Your task to perform on an android device: Open accessibility settings Image 0: 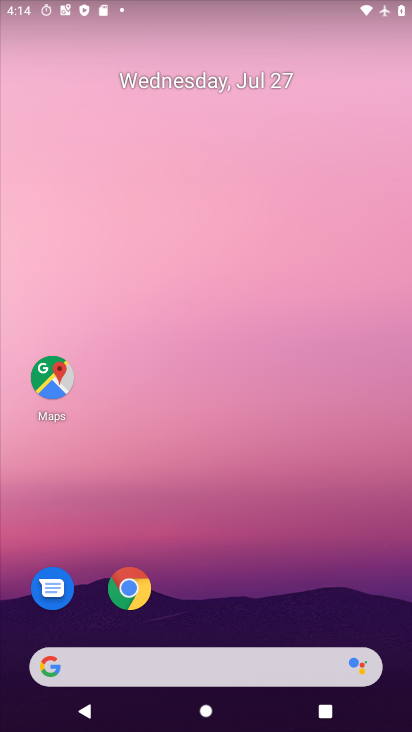
Step 0: press home button
Your task to perform on an android device: Open accessibility settings Image 1: 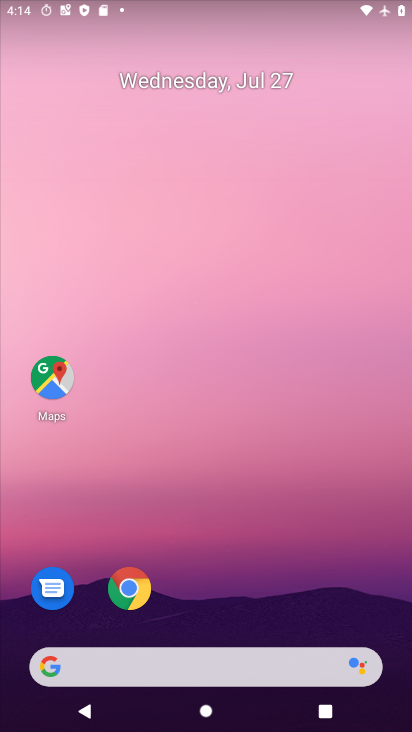
Step 1: drag from (231, 488) to (380, 0)
Your task to perform on an android device: Open accessibility settings Image 2: 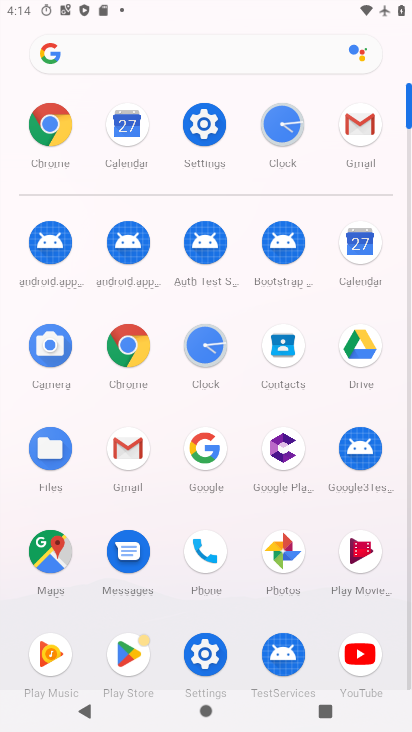
Step 2: click (210, 112)
Your task to perform on an android device: Open accessibility settings Image 3: 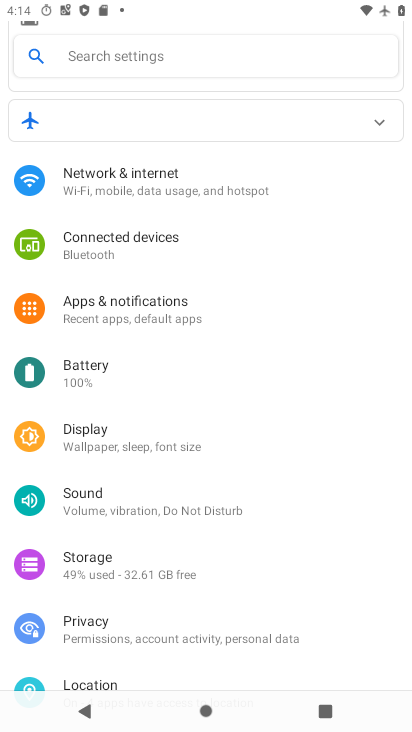
Step 3: drag from (159, 592) to (181, 235)
Your task to perform on an android device: Open accessibility settings Image 4: 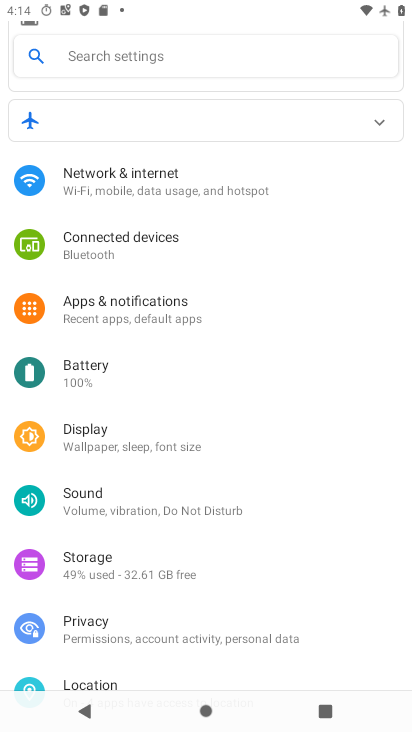
Step 4: drag from (200, 599) to (253, 163)
Your task to perform on an android device: Open accessibility settings Image 5: 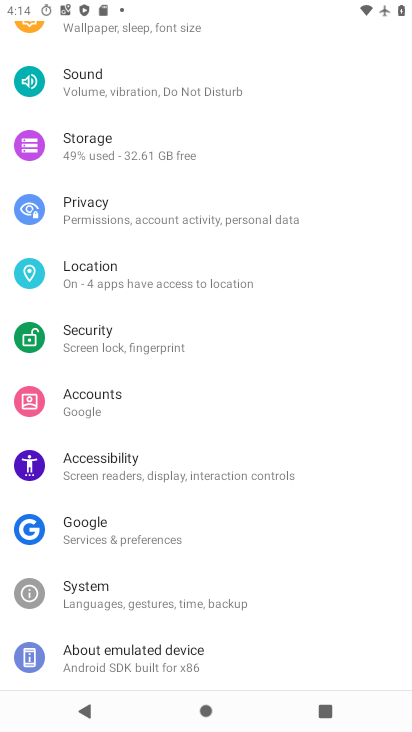
Step 5: click (105, 448)
Your task to perform on an android device: Open accessibility settings Image 6: 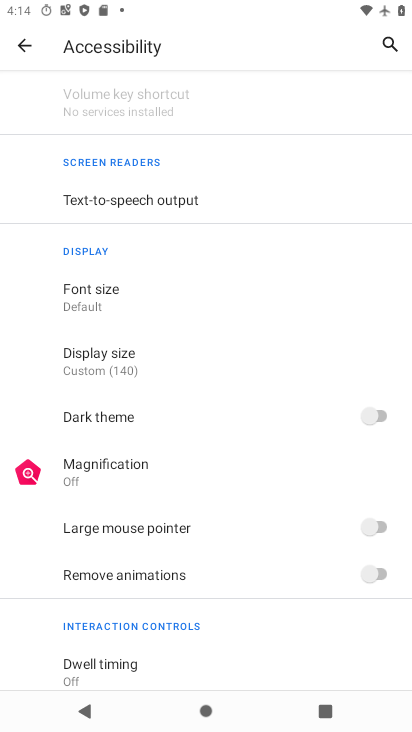
Step 6: task complete